Your task to perform on an android device: check storage Image 0: 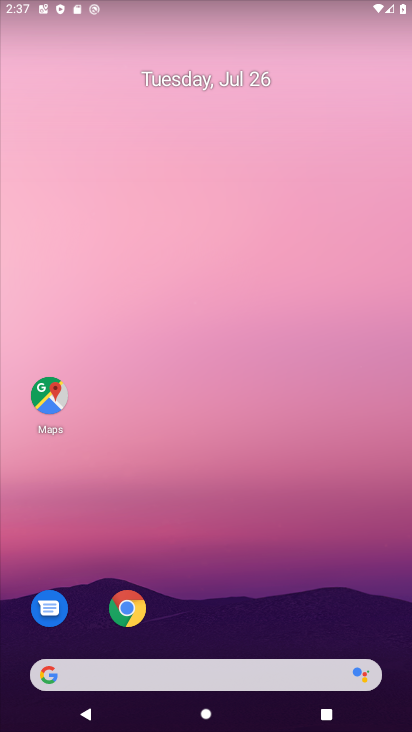
Step 0: drag from (255, 623) to (275, 182)
Your task to perform on an android device: check storage Image 1: 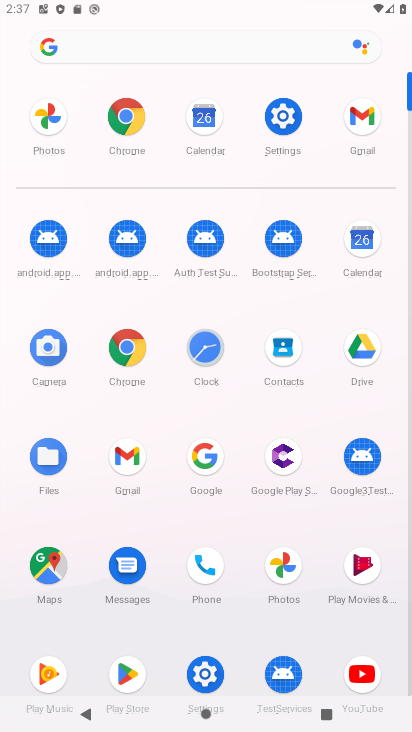
Step 1: task complete